Your task to perform on an android device: Go to notification settings Image 0: 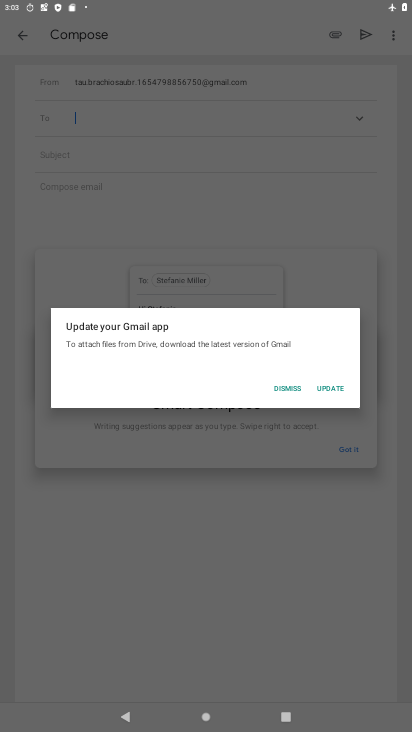
Step 0: press home button
Your task to perform on an android device: Go to notification settings Image 1: 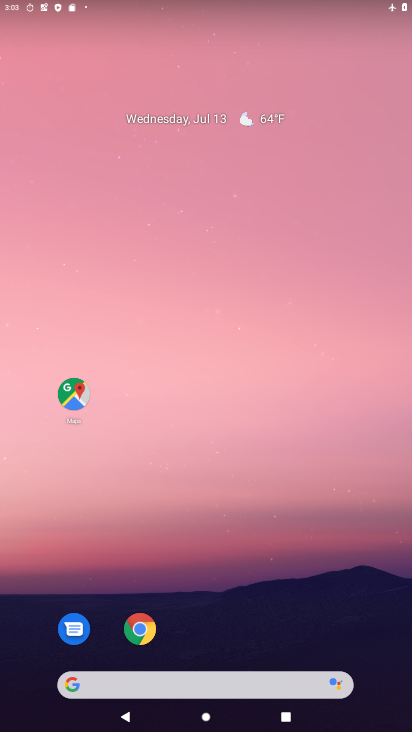
Step 1: drag from (268, 679) to (279, 107)
Your task to perform on an android device: Go to notification settings Image 2: 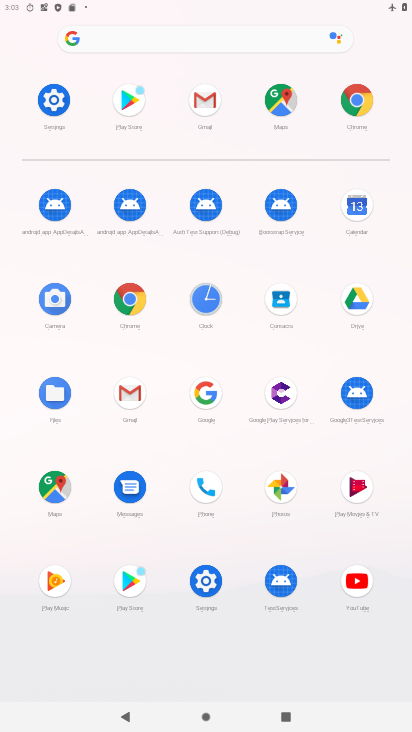
Step 2: click (38, 100)
Your task to perform on an android device: Go to notification settings Image 3: 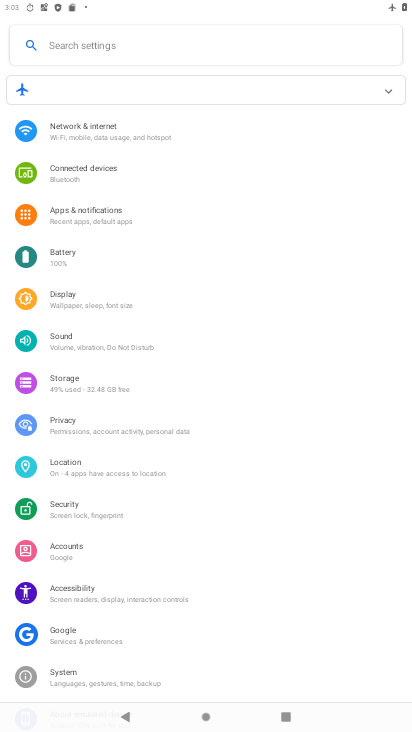
Step 3: click (95, 213)
Your task to perform on an android device: Go to notification settings Image 4: 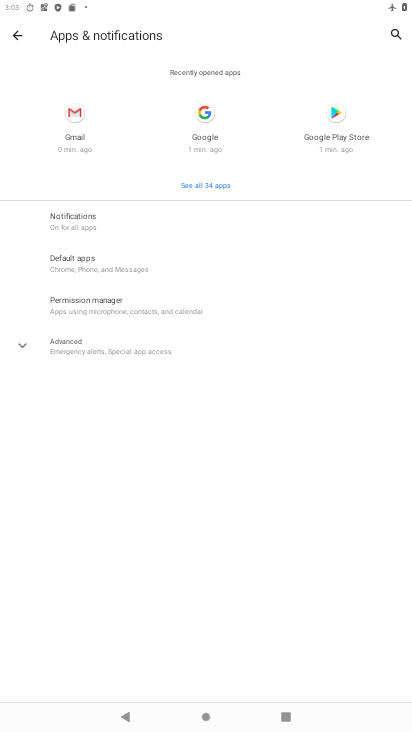
Step 4: click (92, 229)
Your task to perform on an android device: Go to notification settings Image 5: 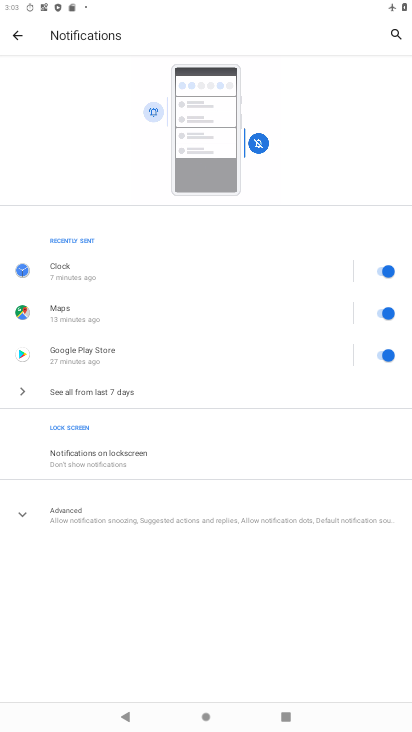
Step 5: click (97, 506)
Your task to perform on an android device: Go to notification settings Image 6: 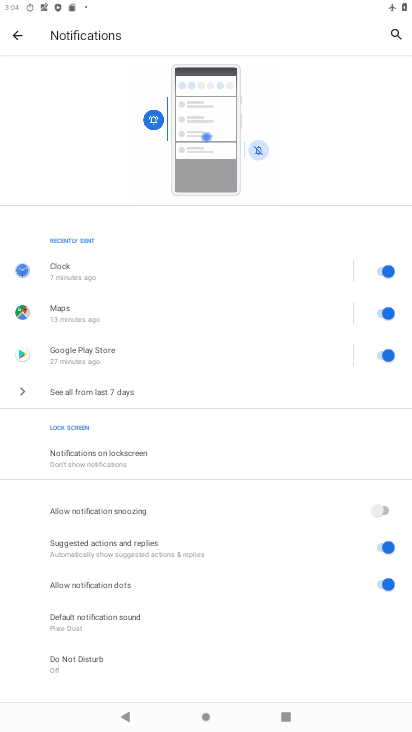
Step 6: task complete